Your task to perform on an android device: see creations saved in the google photos Image 0: 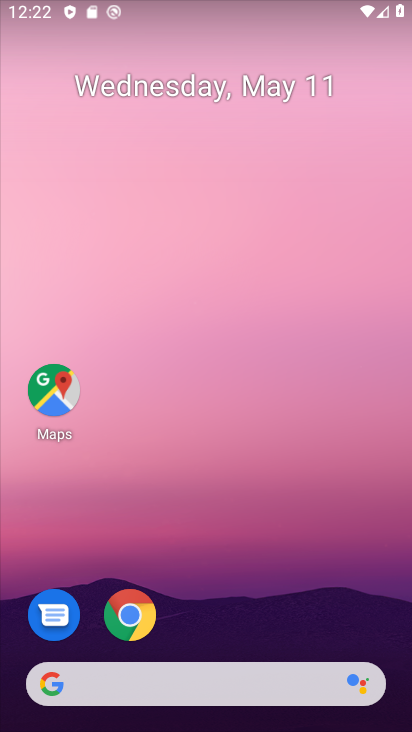
Step 0: drag from (254, 605) to (317, 136)
Your task to perform on an android device: see creations saved in the google photos Image 1: 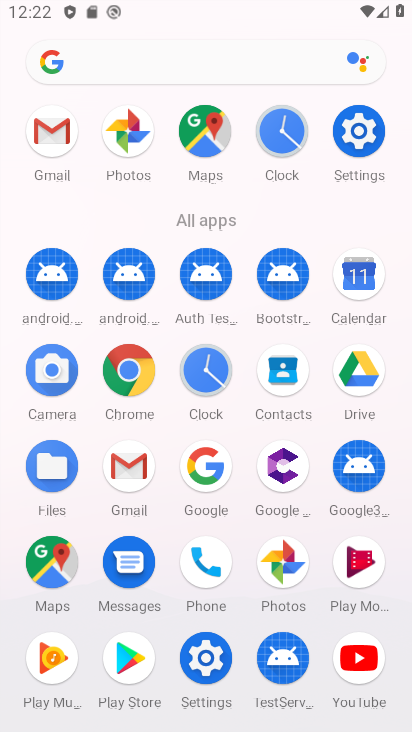
Step 1: click (280, 564)
Your task to perform on an android device: see creations saved in the google photos Image 2: 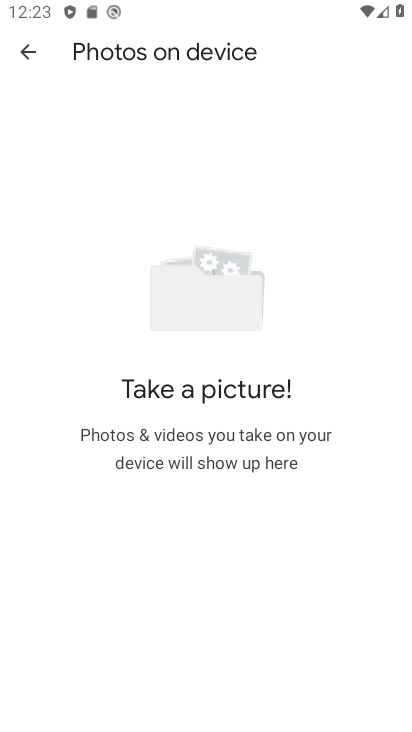
Step 2: click (39, 42)
Your task to perform on an android device: see creations saved in the google photos Image 3: 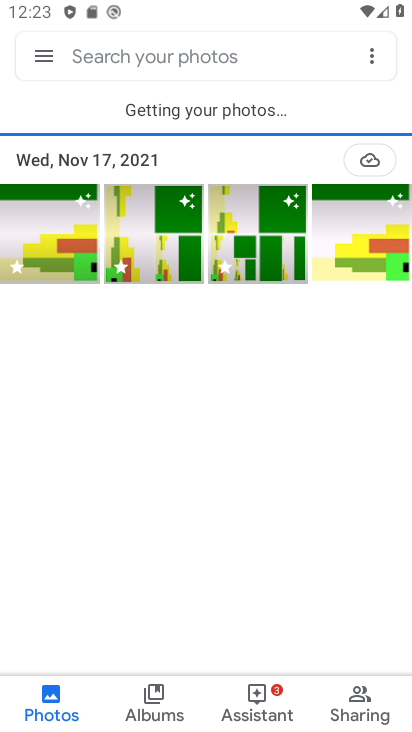
Step 3: click (163, 714)
Your task to perform on an android device: see creations saved in the google photos Image 4: 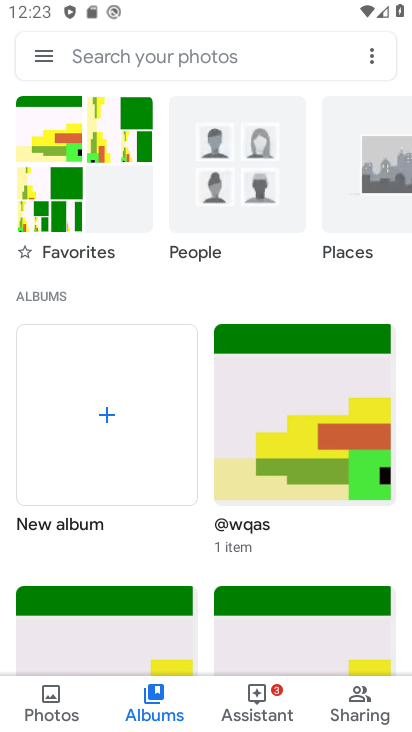
Step 4: click (270, 693)
Your task to perform on an android device: see creations saved in the google photos Image 5: 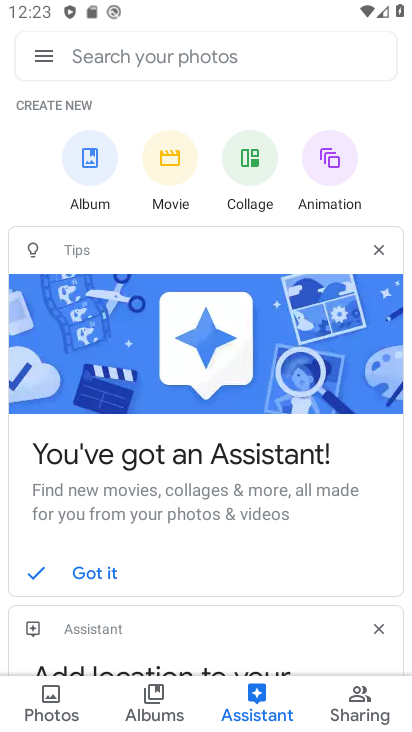
Step 5: click (37, 47)
Your task to perform on an android device: see creations saved in the google photos Image 6: 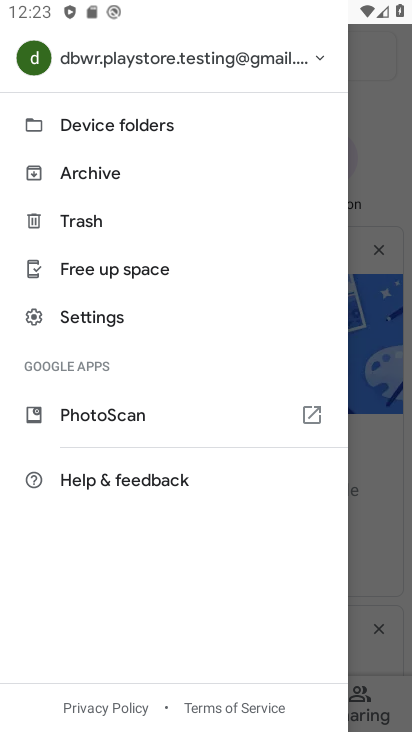
Step 6: click (98, 315)
Your task to perform on an android device: see creations saved in the google photos Image 7: 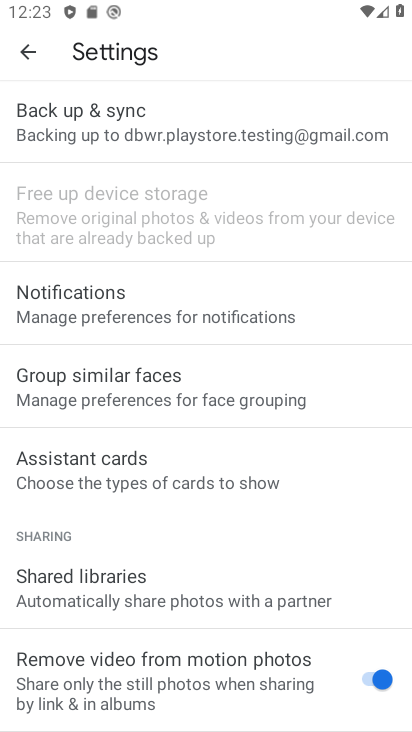
Step 7: task complete